Your task to perform on an android device: Open CNN.com Image 0: 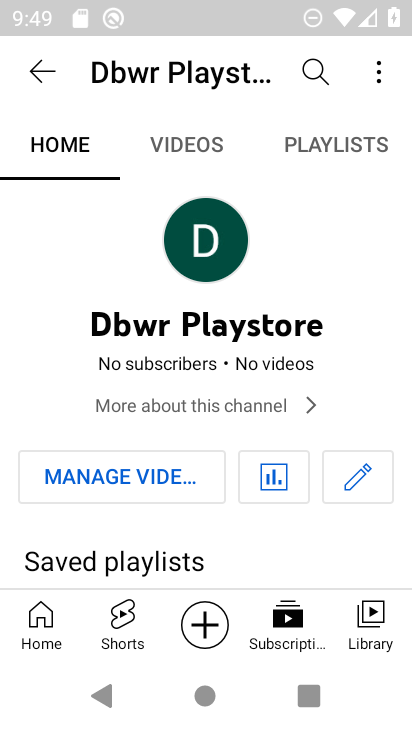
Step 0: press home button
Your task to perform on an android device: Open CNN.com Image 1: 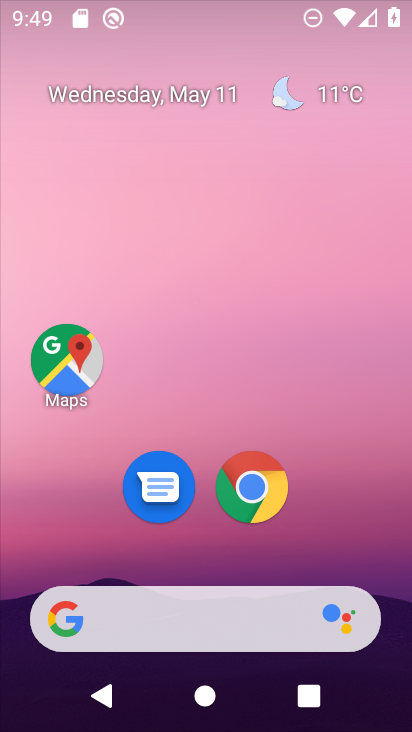
Step 1: drag from (258, 649) to (305, 240)
Your task to perform on an android device: Open CNN.com Image 2: 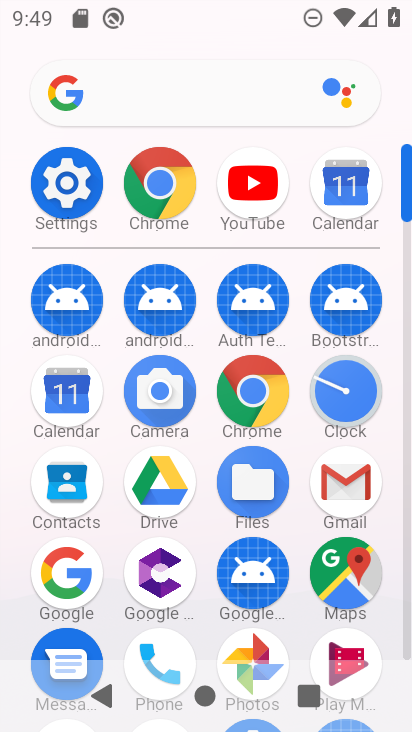
Step 2: click (170, 180)
Your task to perform on an android device: Open CNN.com Image 3: 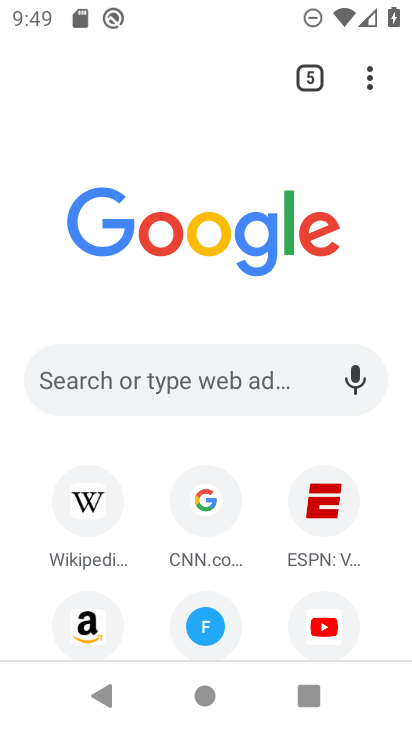
Step 3: click (171, 361)
Your task to perform on an android device: Open CNN.com Image 4: 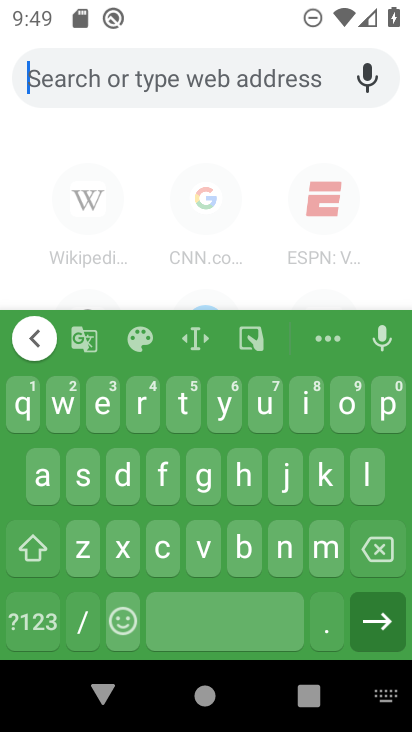
Step 4: click (162, 552)
Your task to perform on an android device: Open CNN.com Image 5: 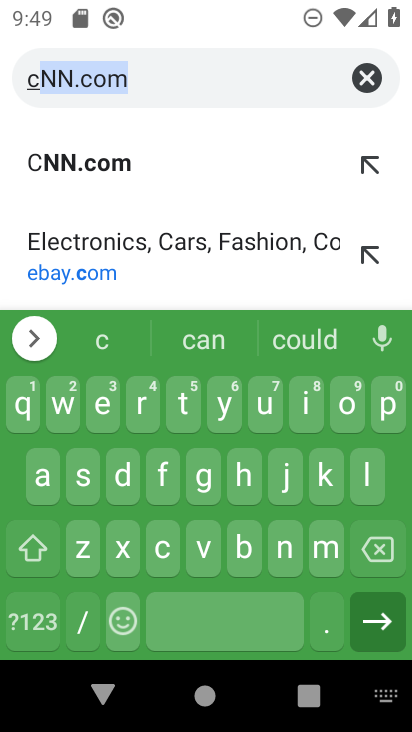
Step 5: click (119, 176)
Your task to perform on an android device: Open CNN.com Image 6: 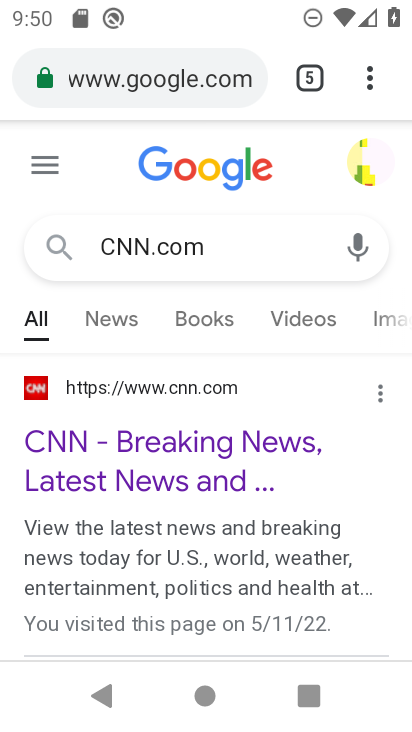
Step 6: click (77, 440)
Your task to perform on an android device: Open CNN.com Image 7: 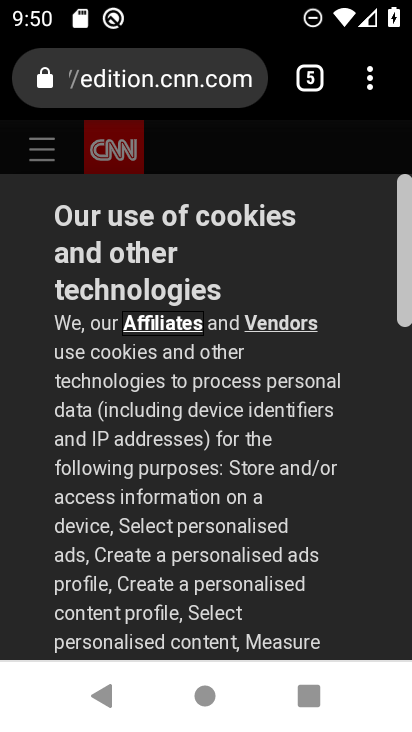
Step 7: task complete